Your task to perform on an android device: open the mobile data screen to see how much data has been used Image 0: 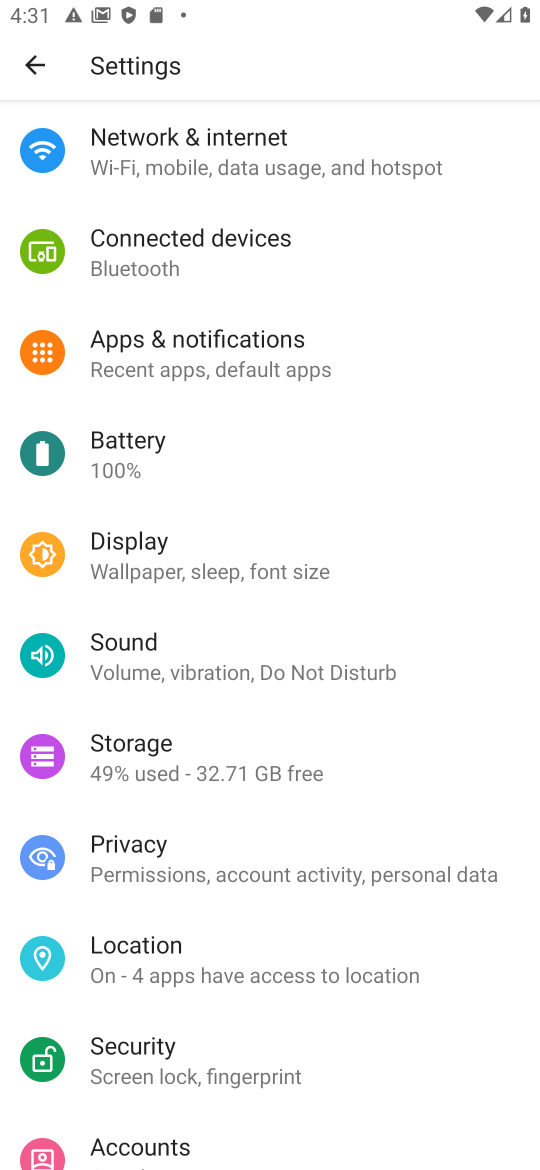
Step 0: press home button
Your task to perform on an android device: open the mobile data screen to see how much data has been used Image 1: 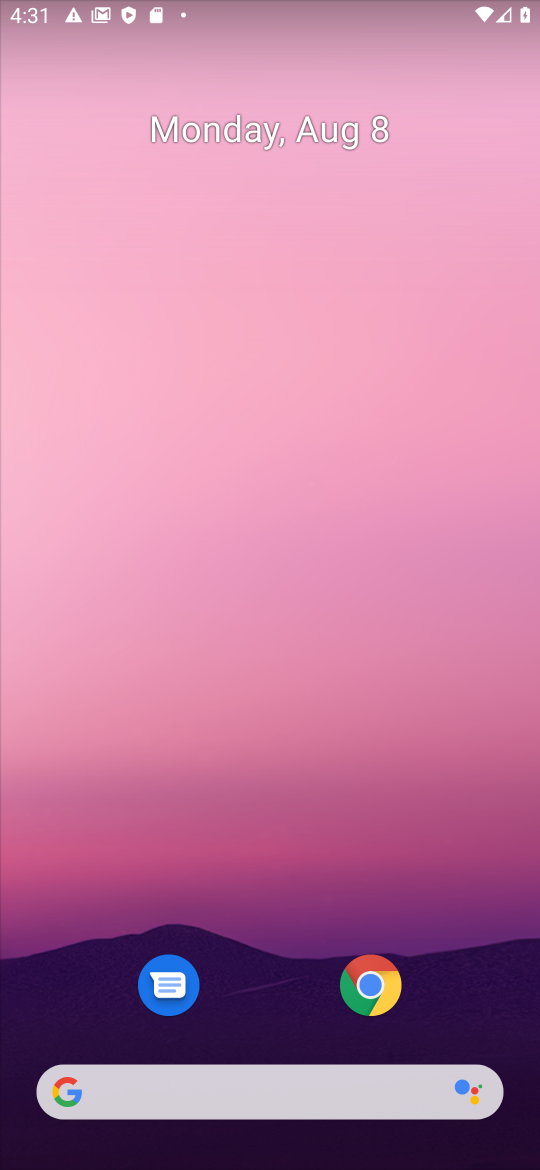
Step 1: drag from (167, 822) to (220, 157)
Your task to perform on an android device: open the mobile data screen to see how much data has been used Image 2: 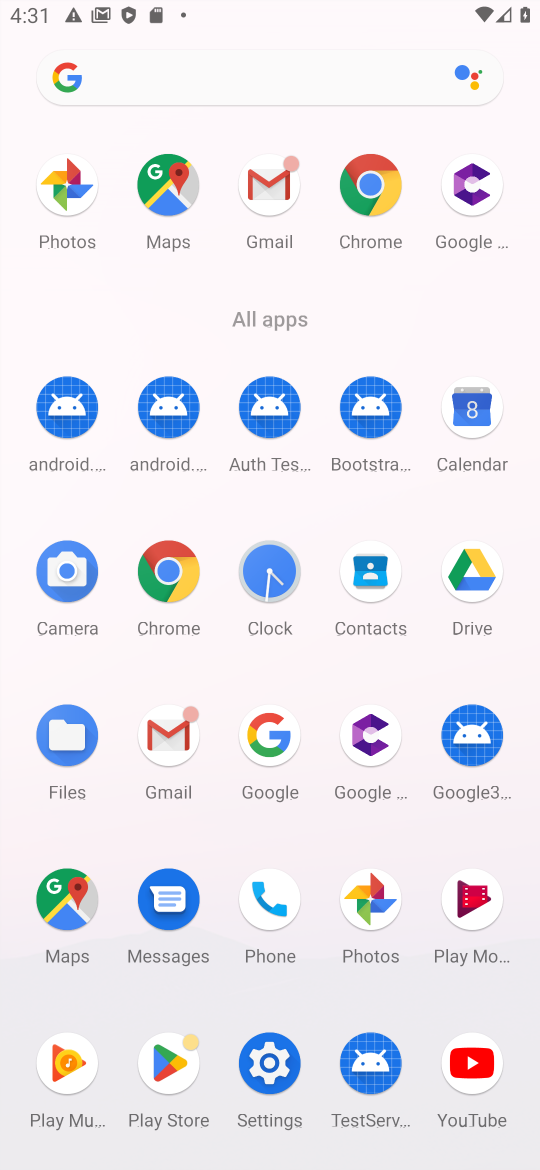
Step 2: click (373, 176)
Your task to perform on an android device: open the mobile data screen to see how much data has been used Image 3: 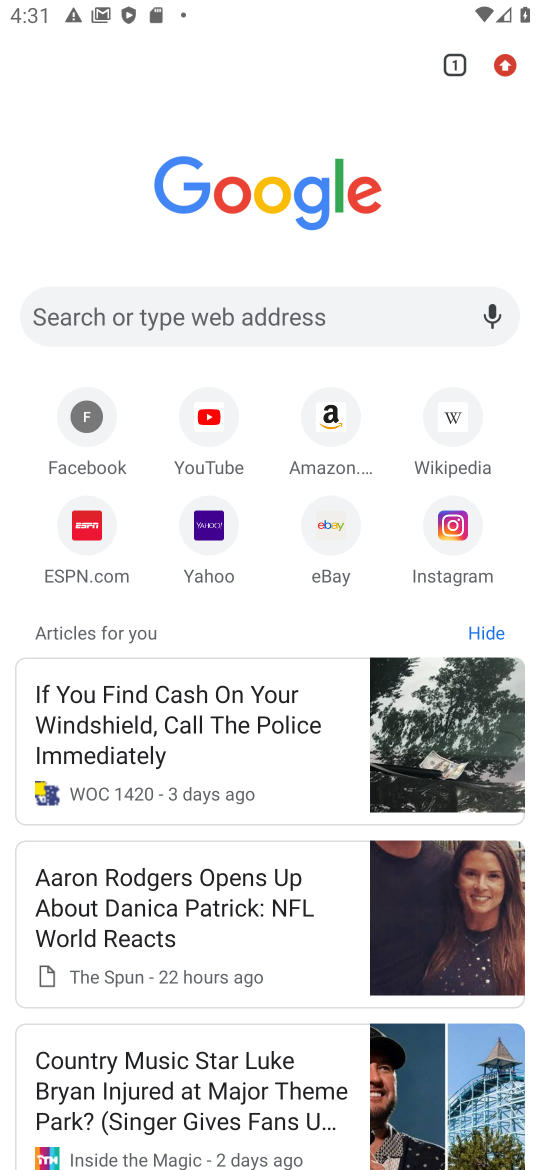
Step 3: task complete